Your task to perform on an android device: star an email in the gmail app Image 0: 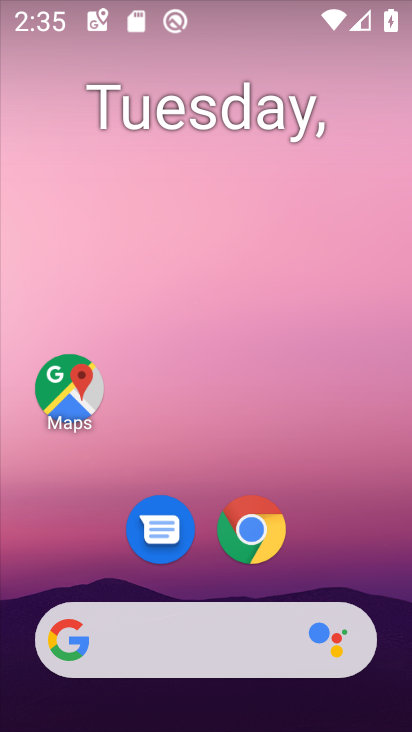
Step 0: drag from (338, 472) to (328, 212)
Your task to perform on an android device: star an email in the gmail app Image 1: 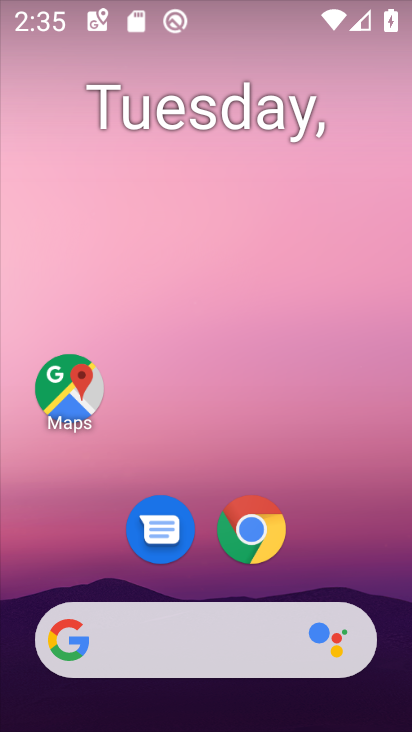
Step 1: drag from (305, 511) to (312, 235)
Your task to perform on an android device: star an email in the gmail app Image 2: 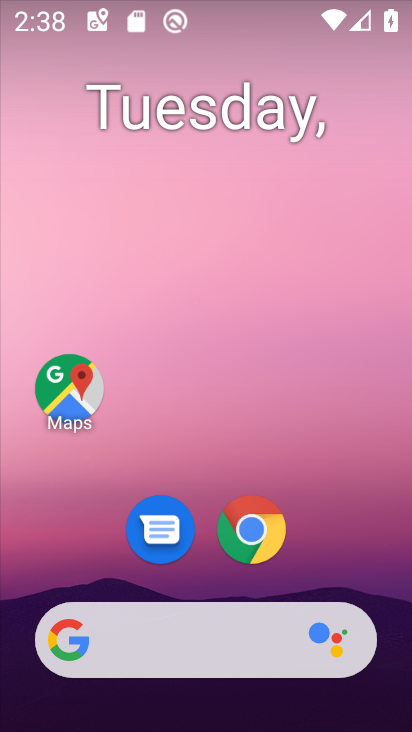
Step 2: drag from (344, 520) to (378, 281)
Your task to perform on an android device: star an email in the gmail app Image 3: 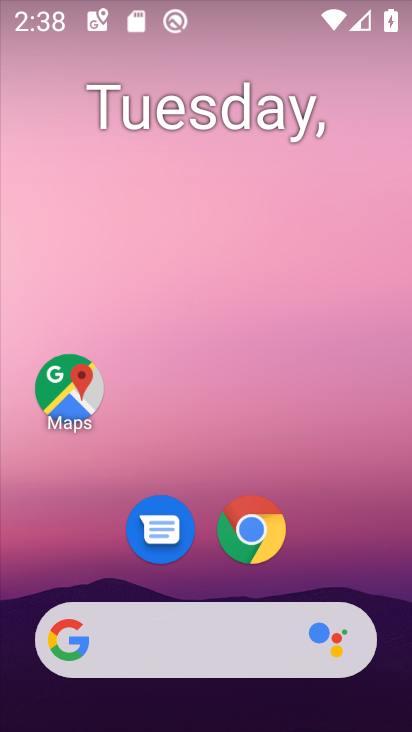
Step 3: drag from (274, 605) to (283, 256)
Your task to perform on an android device: star an email in the gmail app Image 4: 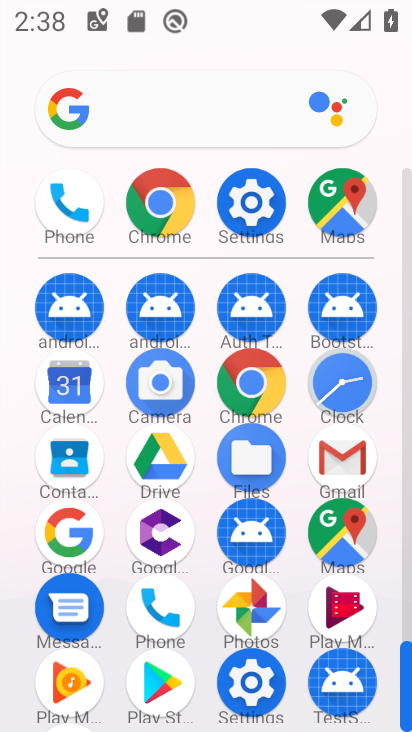
Step 4: click (342, 456)
Your task to perform on an android device: star an email in the gmail app Image 5: 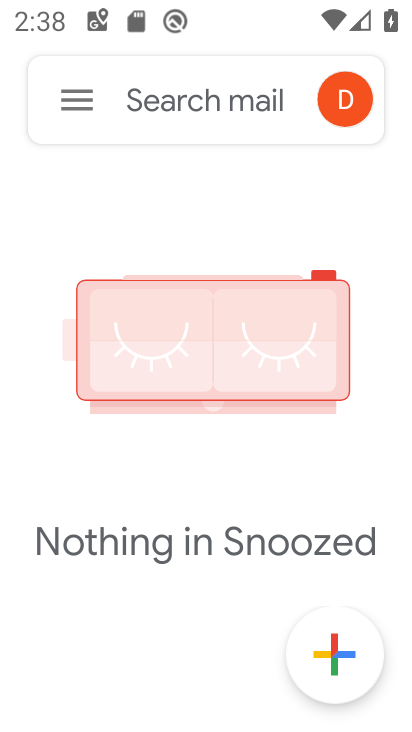
Step 5: click (65, 105)
Your task to perform on an android device: star an email in the gmail app Image 6: 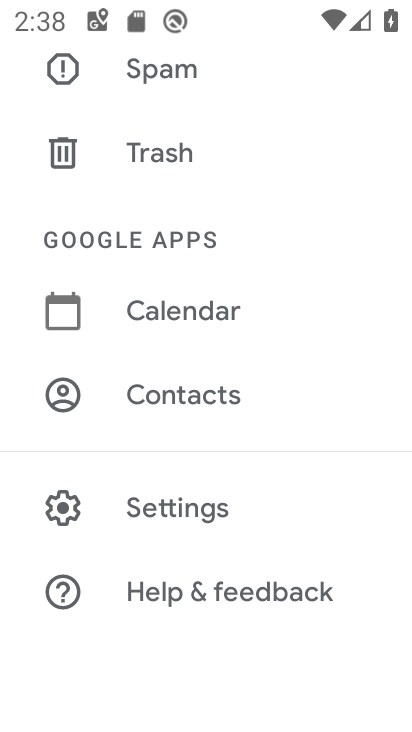
Step 6: drag from (186, 171) to (159, 512)
Your task to perform on an android device: star an email in the gmail app Image 7: 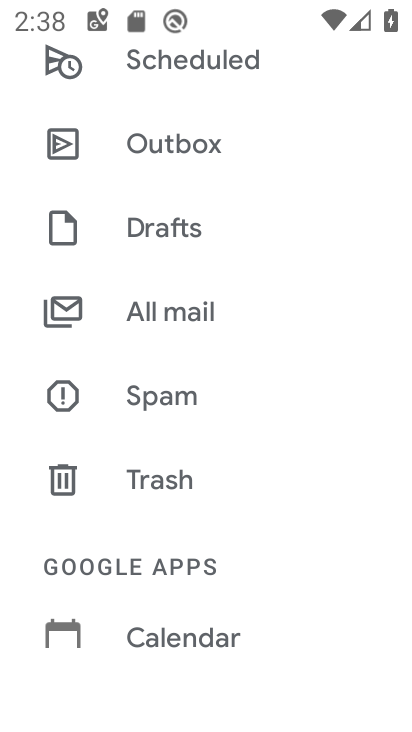
Step 7: drag from (211, 94) to (189, 545)
Your task to perform on an android device: star an email in the gmail app Image 8: 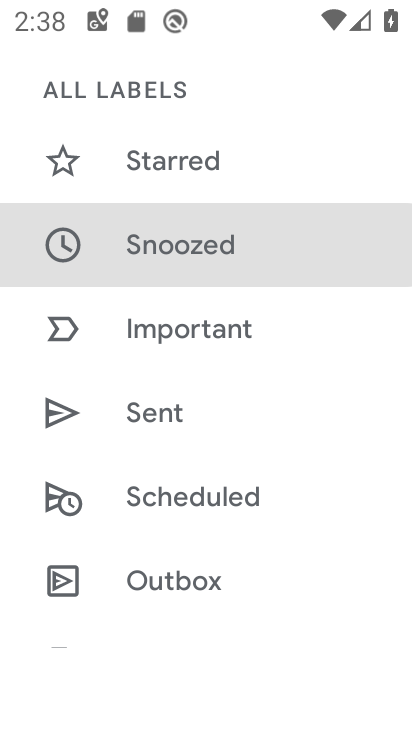
Step 8: click (257, 195)
Your task to perform on an android device: star an email in the gmail app Image 9: 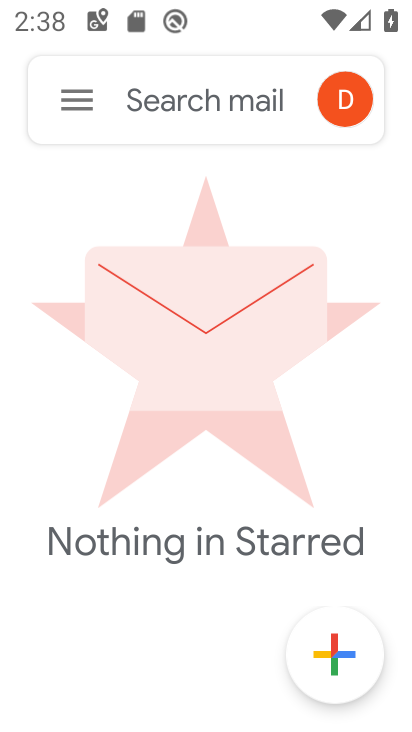
Step 9: task complete